Your task to perform on an android device: open app "Airtel Thanks" Image 0: 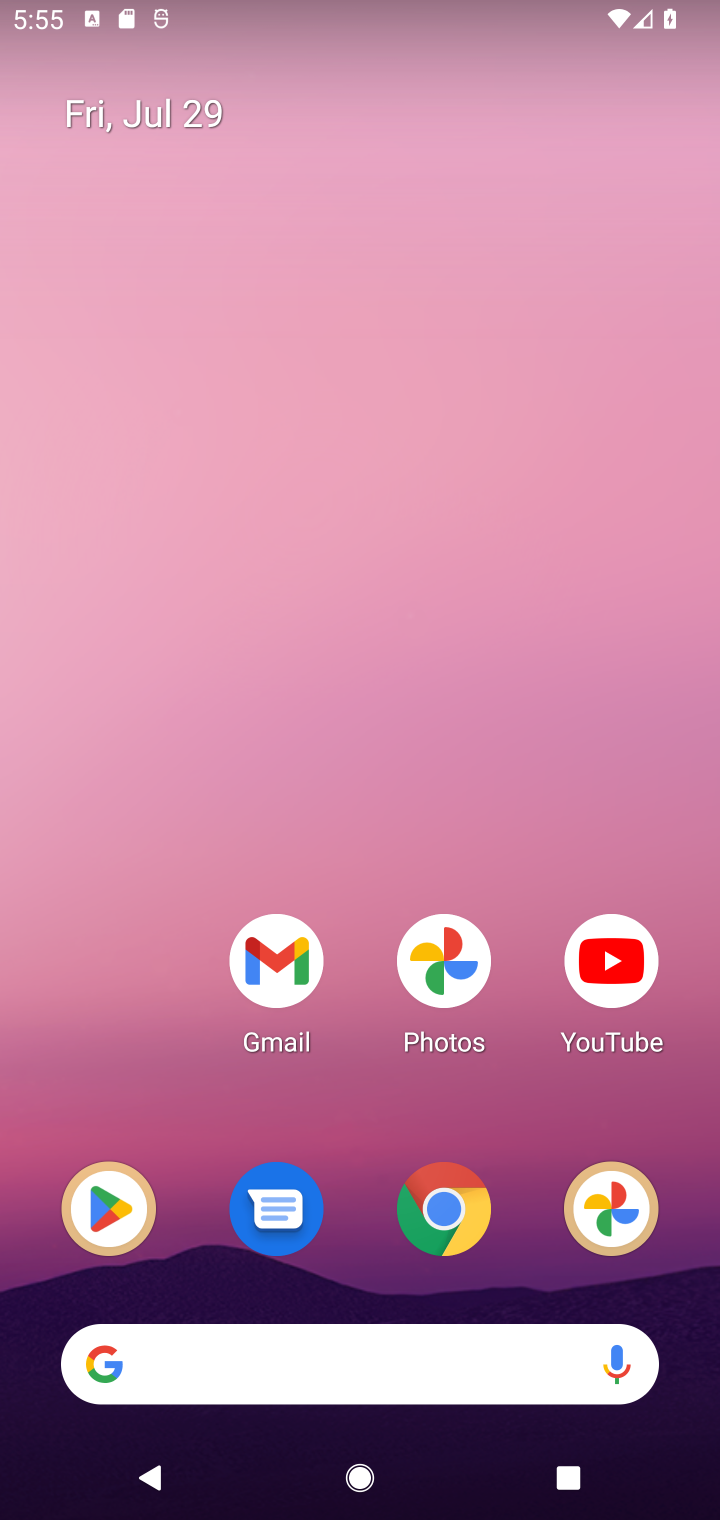
Step 0: drag from (365, 1266) to (363, 102)
Your task to perform on an android device: open app "Airtel Thanks" Image 1: 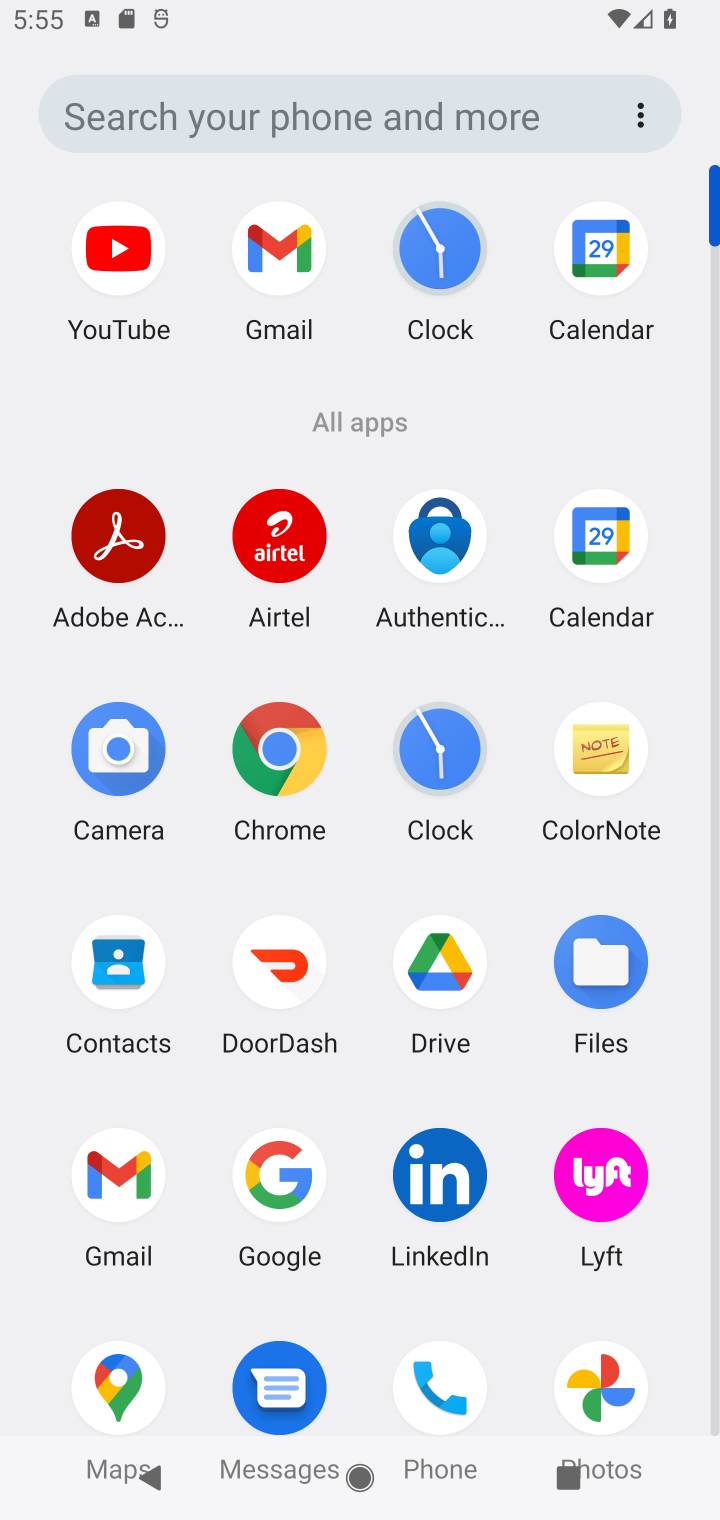
Step 1: click (268, 541)
Your task to perform on an android device: open app "Airtel Thanks" Image 2: 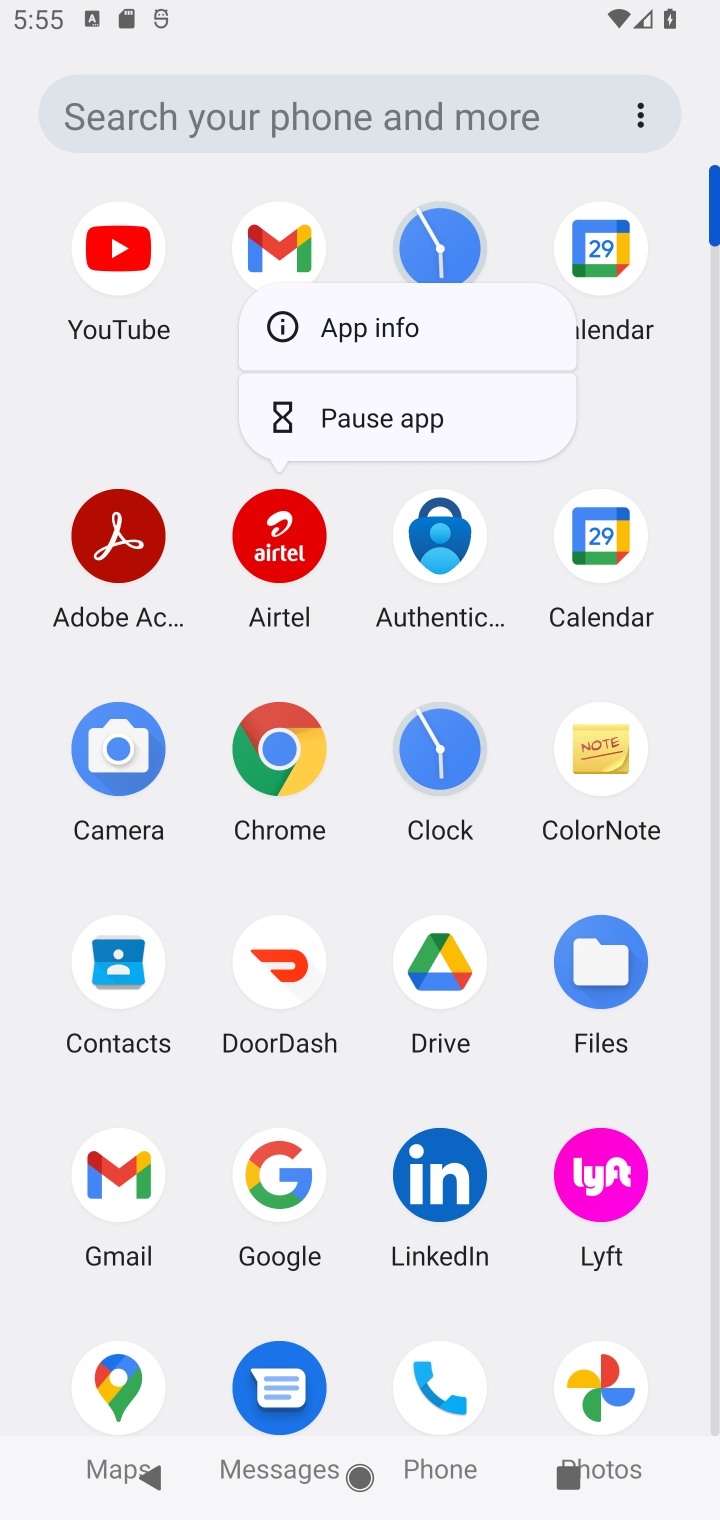
Step 2: click (268, 541)
Your task to perform on an android device: open app "Airtel Thanks" Image 3: 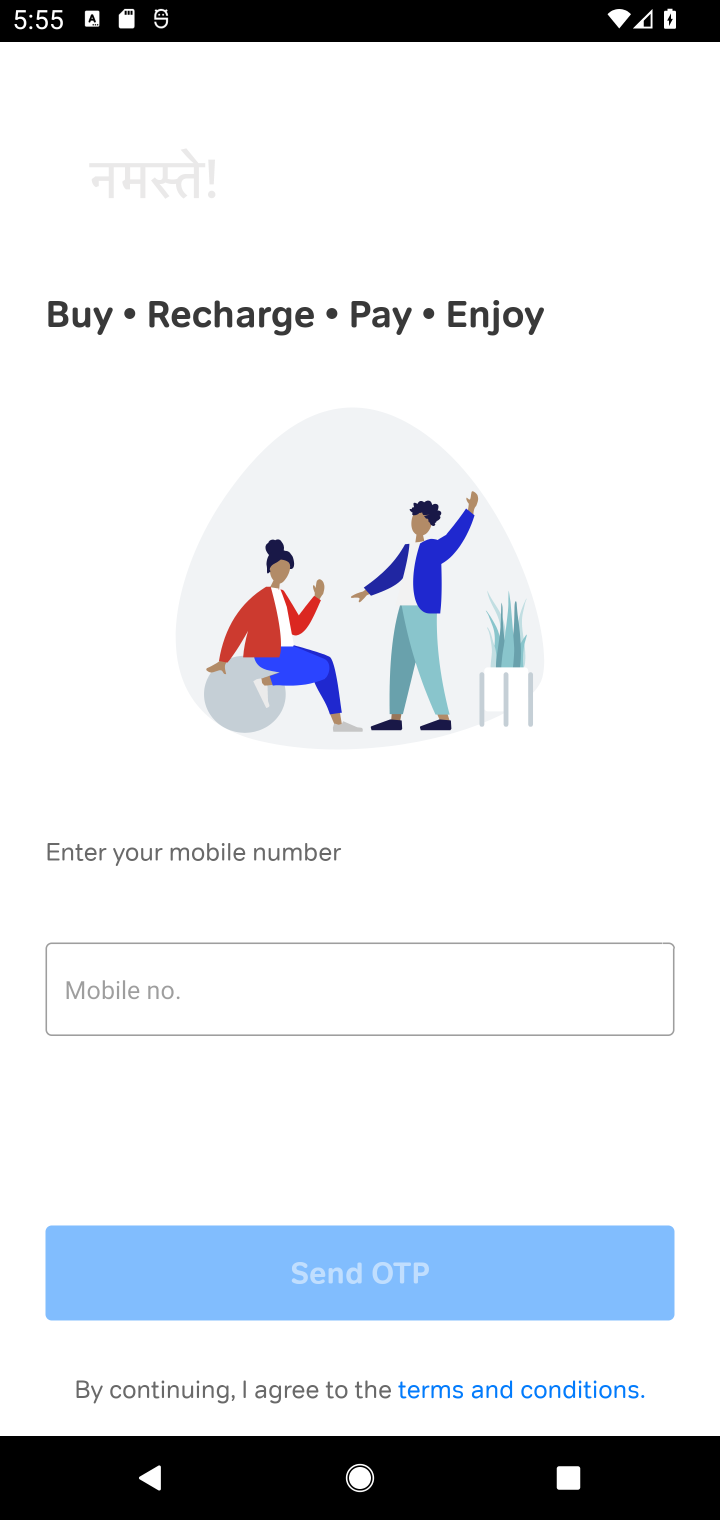
Step 3: task complete